Your task to perform on an android device: turn notification dots off Image 0: 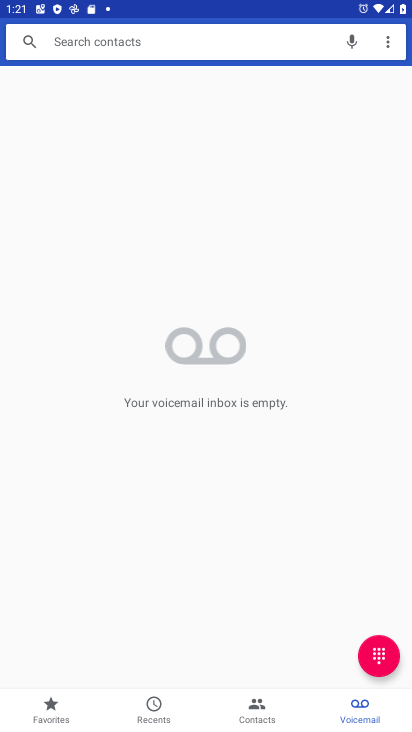
Step 0: press home button
Your task to perform on an android device: turn notification dots off Image 1: 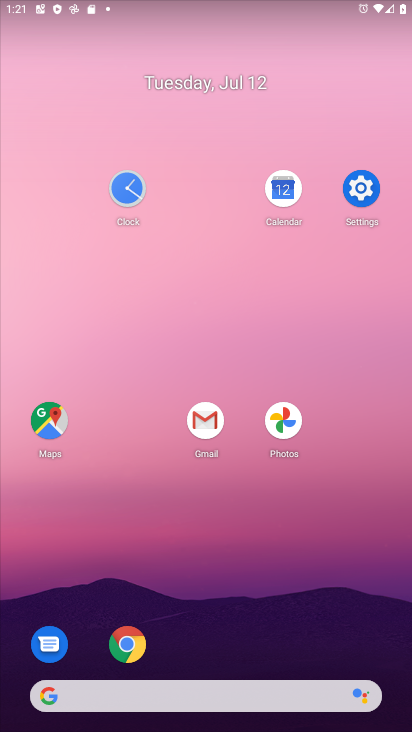
Step 1: click (367, 187)
Your task to perform on an android device: turn notification dots off Image 2: 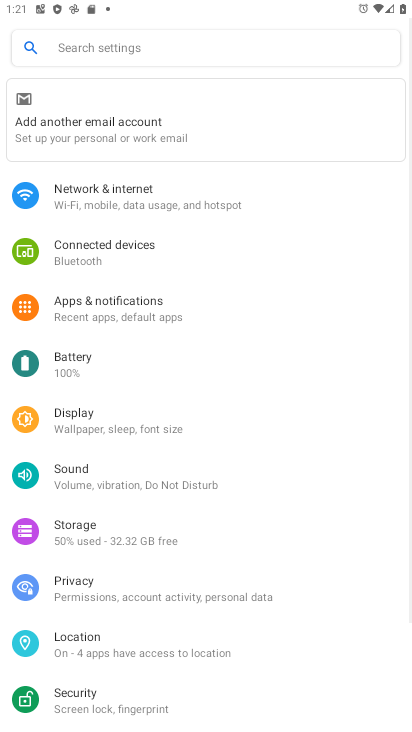
Step 2: click (189, 307)
Your task to perform on an android device: turn notification dots off Image 3: 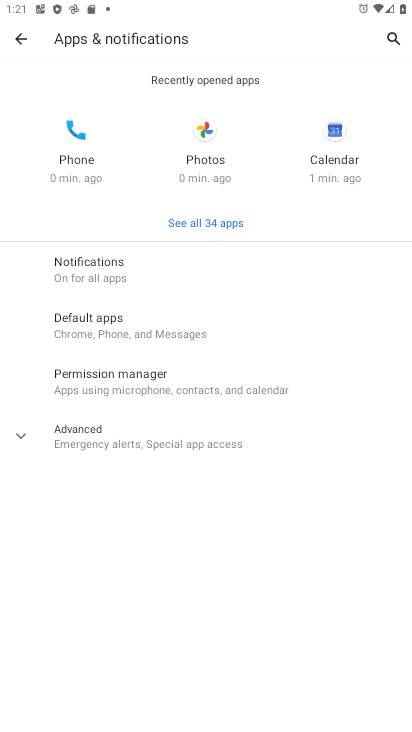
Step 3: click (187, 280)
Your task to perform on an android device: turn notification dots off Image 4: 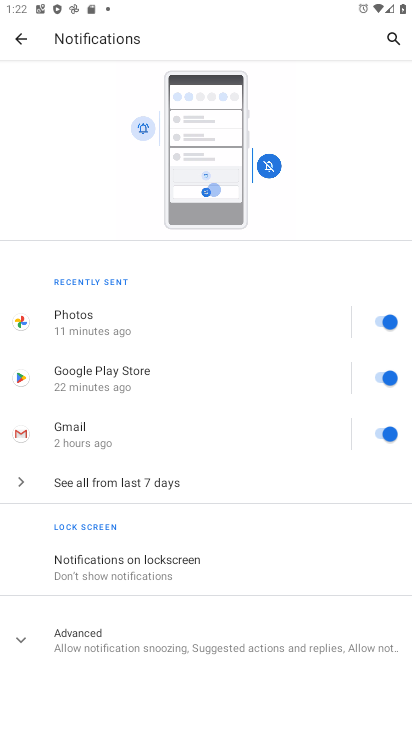
Step 4: click (194, 630)
Your task to perform on an android device: turn notification dots off Image 5: 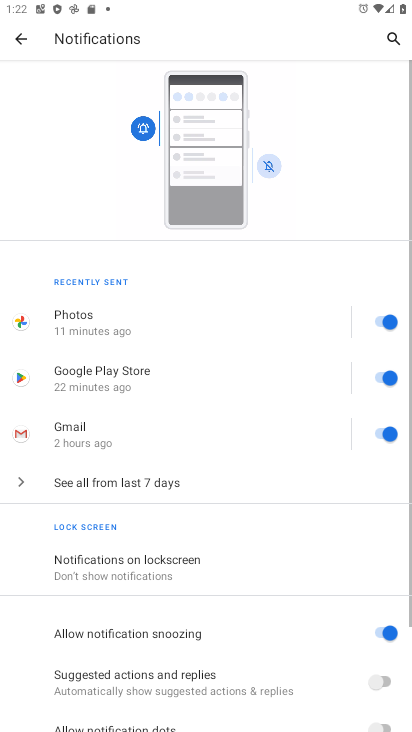
Step 5: task complete